Your task to perform on an android device: open chrome and create a bookmark for the current page Image 0: 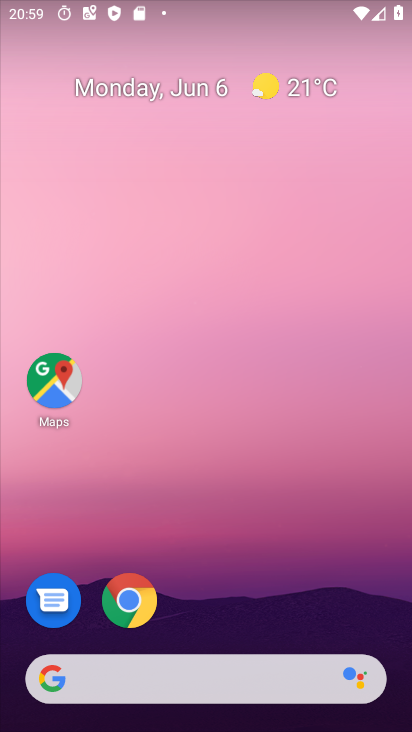
Step 0: drag from (228, 556) to (199, 0)
Your task to perform on an android device: open chrome and create a bookmark for the current page Image 1: 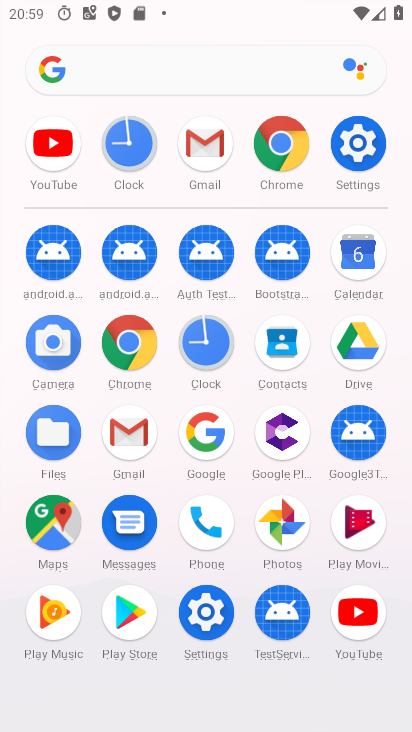
Step 1: click (133, 338)
Your task to perform on an android device: open chrome and create a bookmark for the current page Image 2: 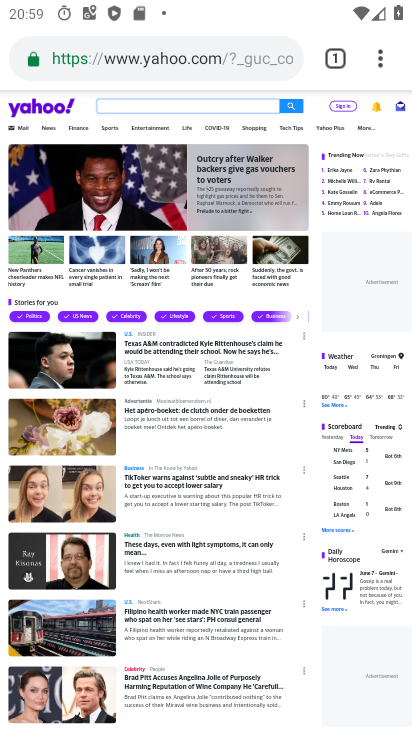
Step 2: task complete